Your task to perform on an android device: refresh tabs in the chrome app Image 0: 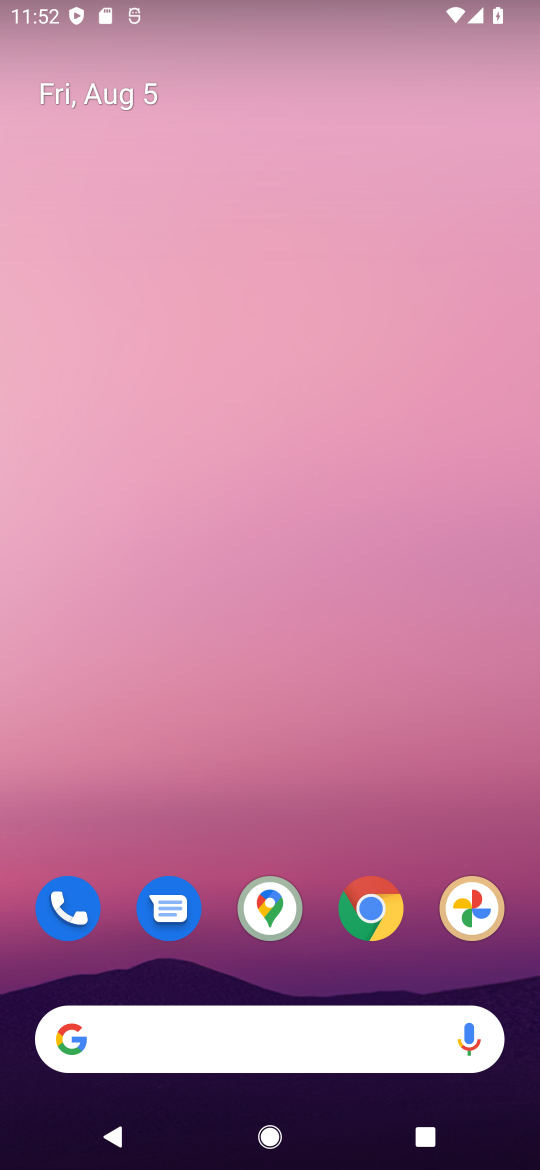
Step 0: drag from (316, 965) to (332, 205)
Your task to perform on an android device: refresh tabs in the chrome app Image 1: 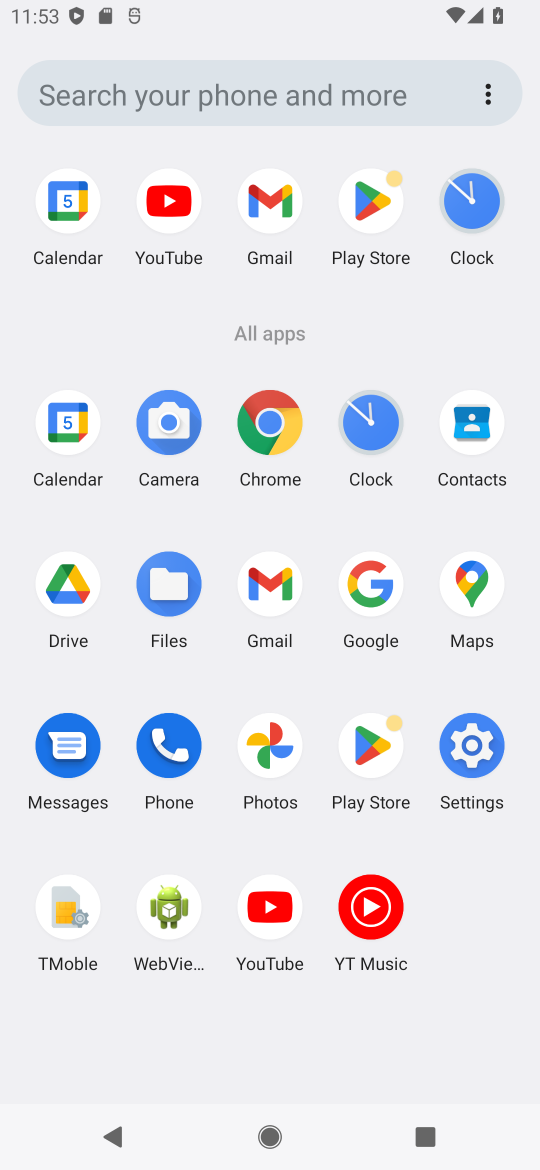
Step 1: click (275, 426)
Your task to perform on an android device: refresh tabs in the chrome app Image 2: 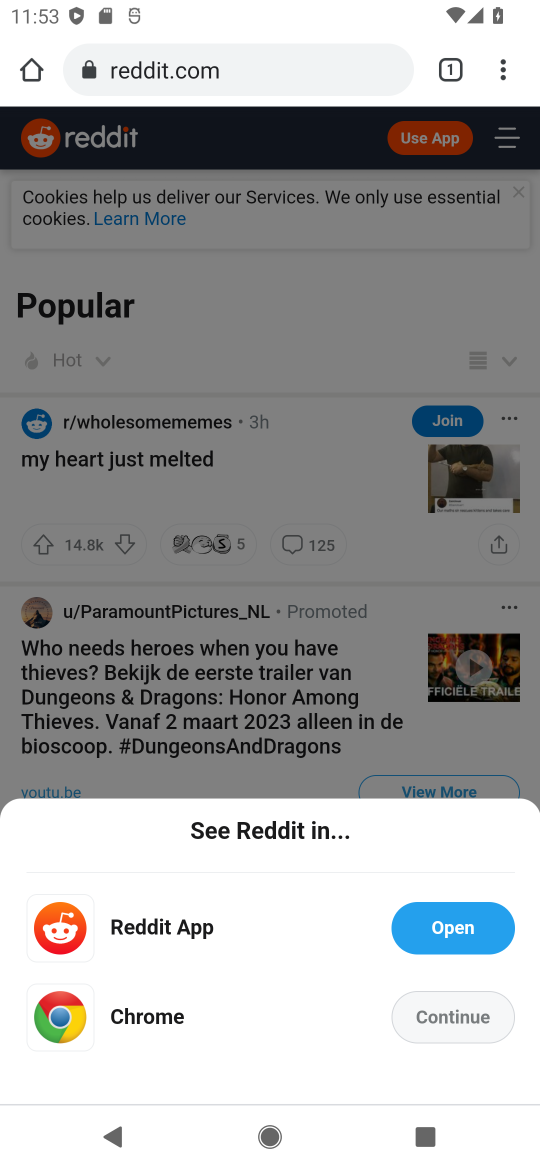
Step 2: task complete